Your task to perform on an android device: open device folders in google photos Image 0: 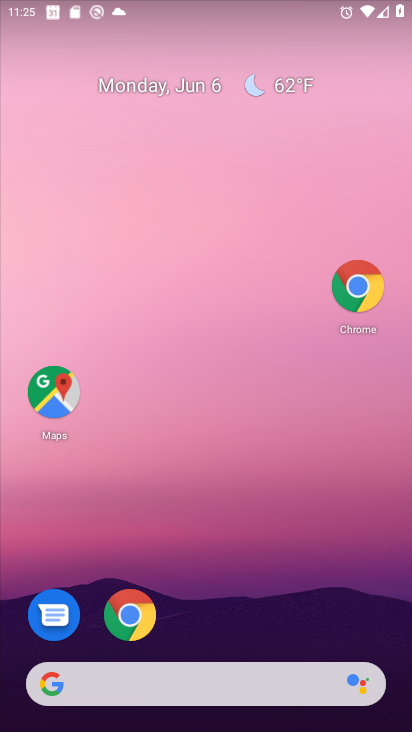
Step 0: drag from (268, 723) to (169, 201)
Your task to perform on an android device: open device folders in google photos Image 1: 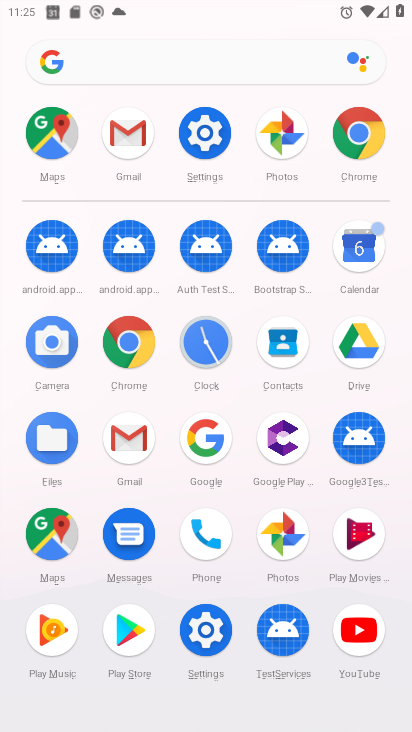
Step 1: click (284, 539)
Your task to perform on an android device: open device folders in google photos Image 2: 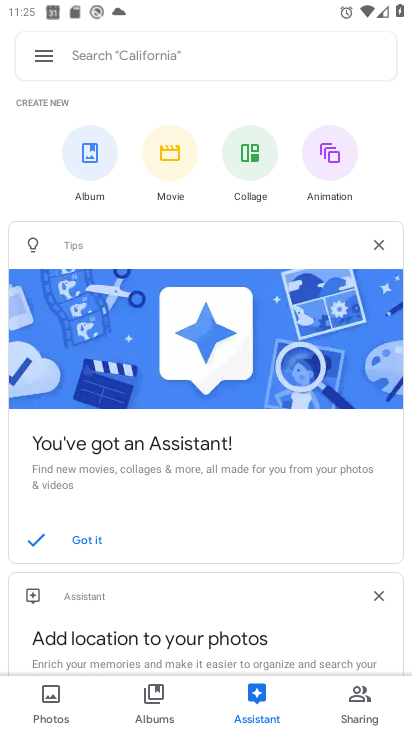
Step 2: click (42, 64)
Your task to perform on an android device: open device folders in google photos Image 3: 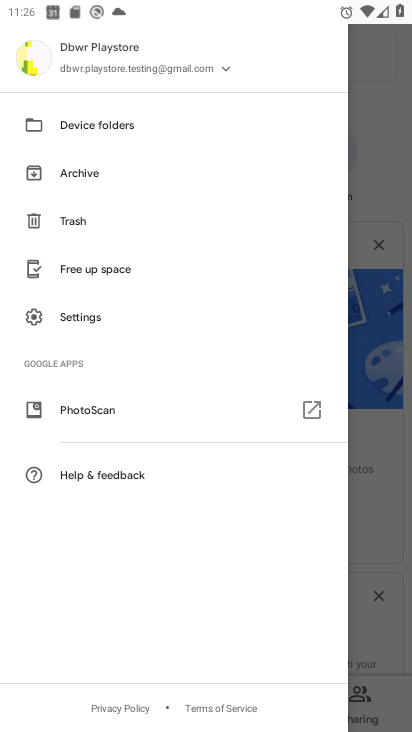
Step 3: click (88, 127)
Your task to perform on an android device: open device folders in google photos Image 4: 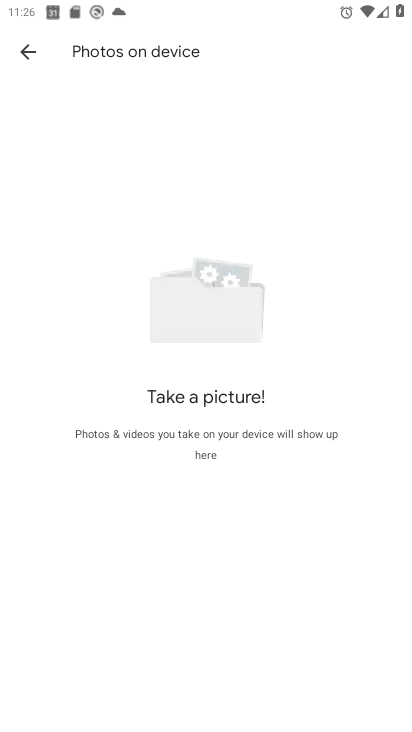
Step 4: task complete